Your task to perform on an android device: find snoozed emails in the gmail app Image 0: 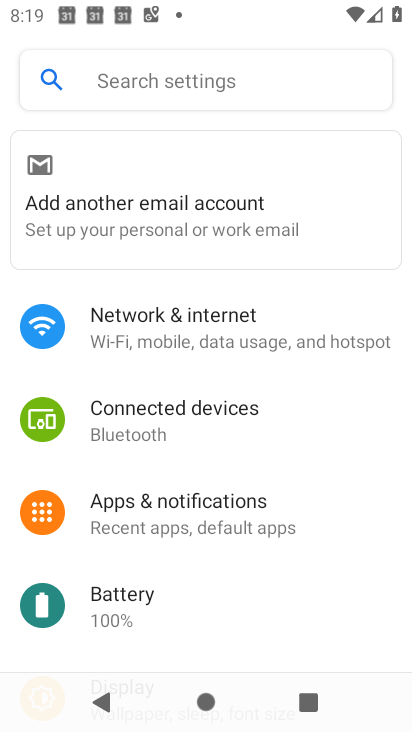
Step 0: press home button
Your task to perform on an android device: find snoozed emails in the gmail app Image 1: 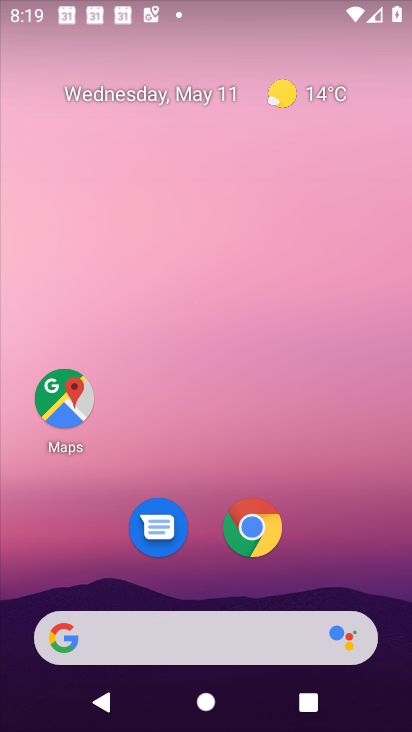
Step 1: drag from (177, 570) to (216, 33)
Your task to perform on an android device: find snoozed emails in the gmail app Image 2: 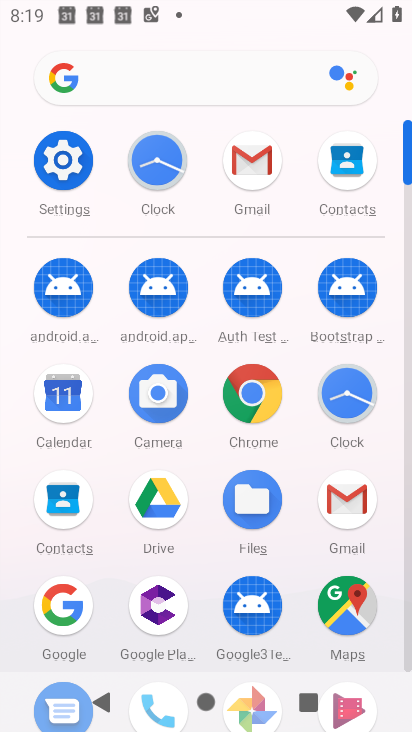
Step 2: click (362, 515)
Your task to perform on an android device: find snoozed emails in the gmail app Image 3: 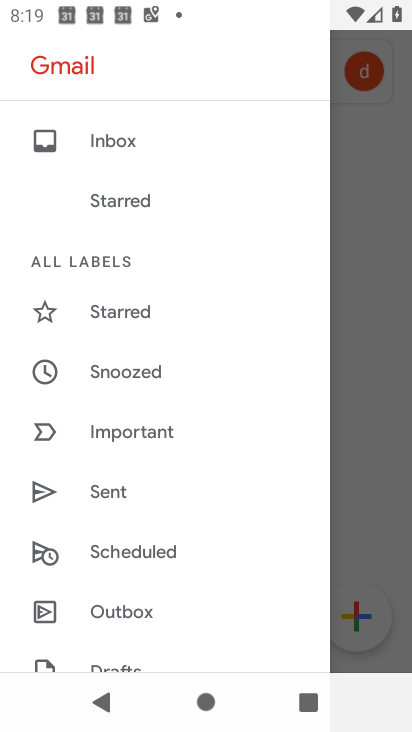
Step 3: click (115, 375)
Your task to perform on an android device: find snoozed emails in the gmail app Image 4: 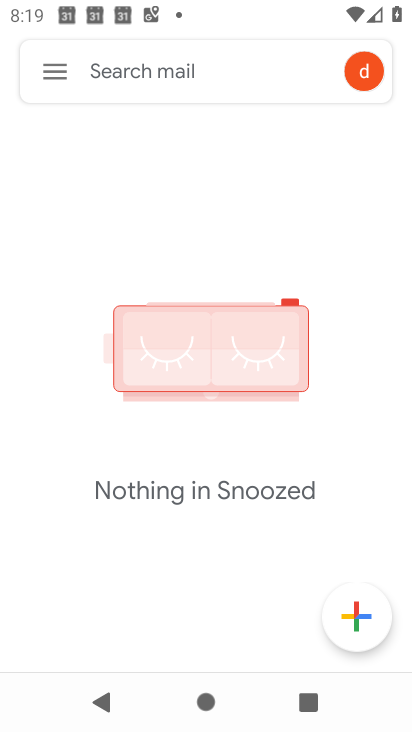
Step 4: task complete